Your task to perform on an android device: Go to Google Image 0: 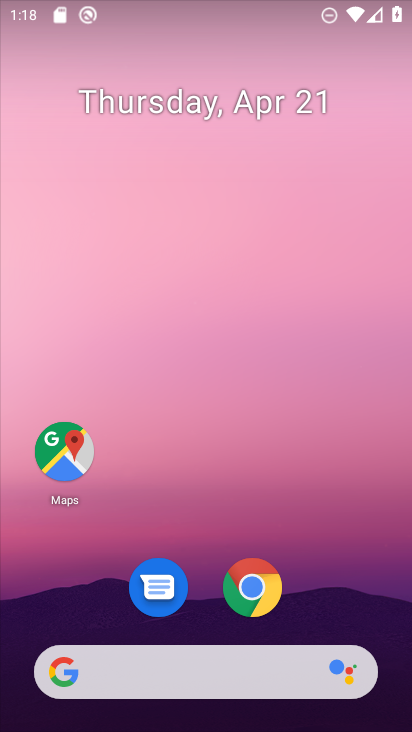
Step 0: click (55, 671)
Your task to perform on an android device: Go to Google Image 1: 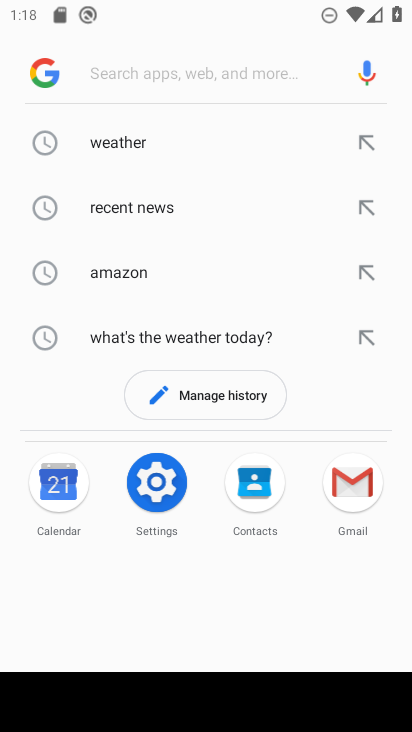
Step 1: click (45, 74)
Your task to perform on an android device: Go to Google Image 2: 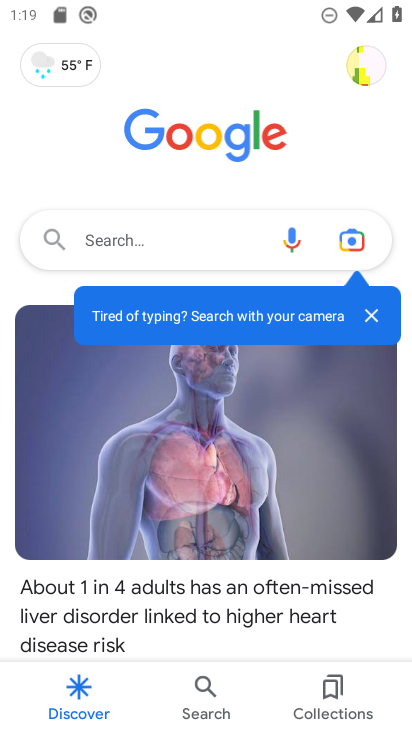
Step 2: task complete